Your task to perform on an android device: open device folders in google photos Image 0: 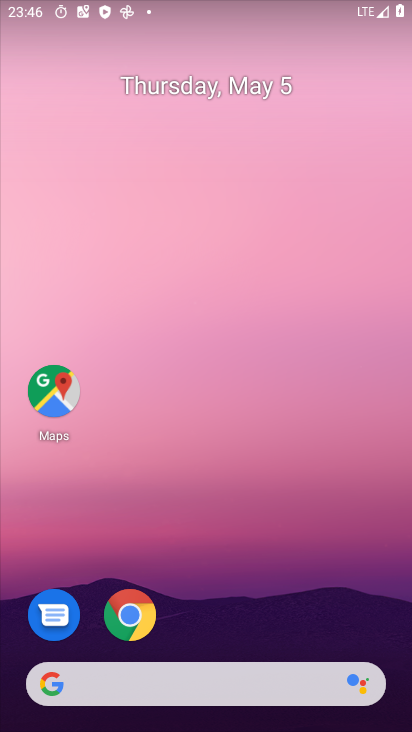
Step 0: drag from (231, 629) to (226, 91)
Your task to perform on an android device: open device folders in google photos Image 1: 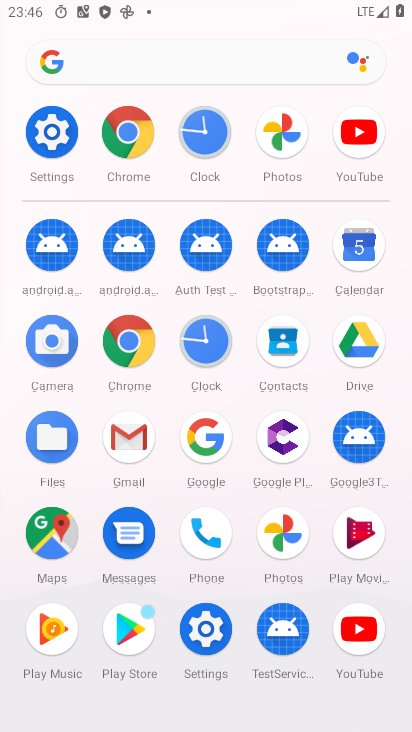
Step 1: click (282, 533)
Your task to perform on an android device: open device folders in google photos Image 2: 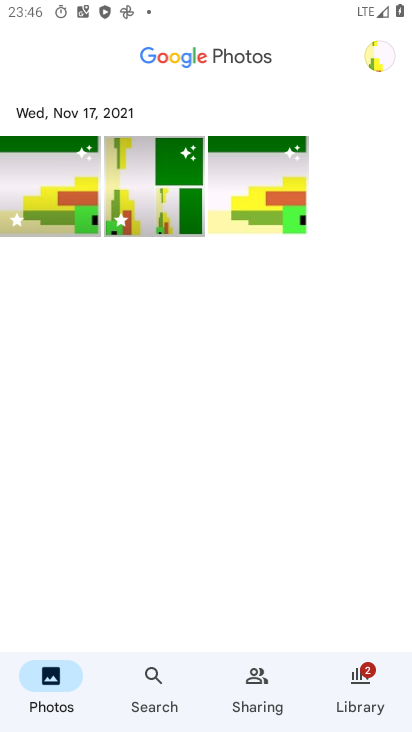
Step 2: click (379, 55)
Your task to perform on an android device: open device folders in google photos Image 3: 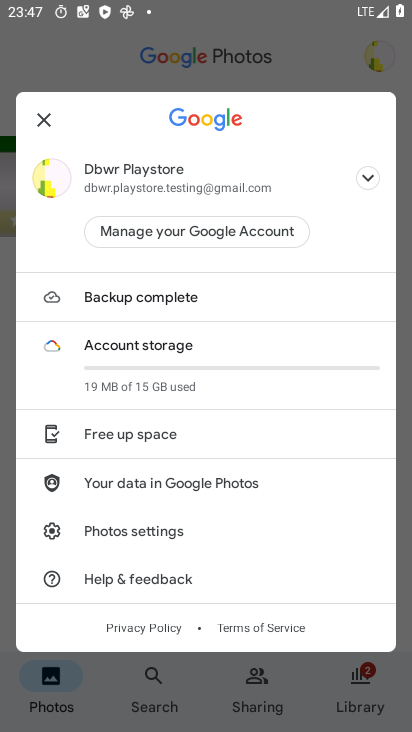
Step 3: task complete